Your task to perform on an android device: Open Amazon Image 0: 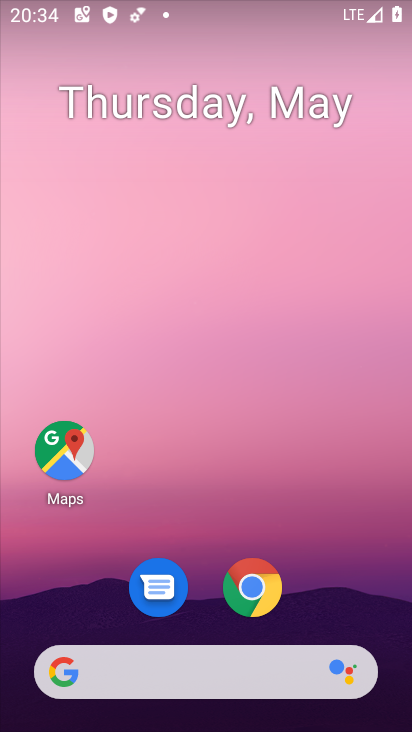
Step 0: click (247, 597)
Your task to perform on an android device: Open Amazon Image 1: 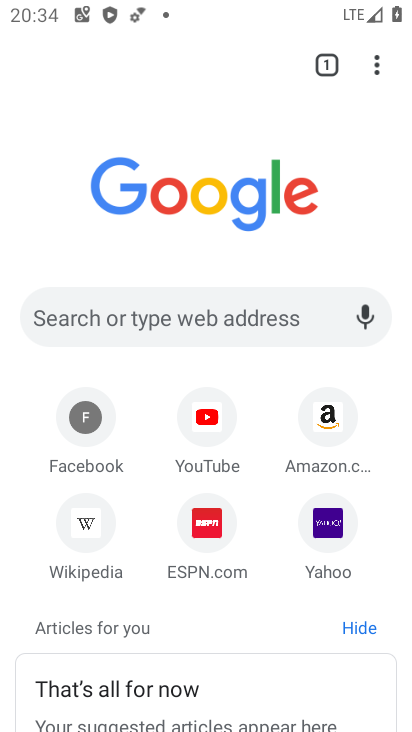
Step 1: click (327, 427)
Your task to perform on an android device: Open Amazon Image 2: 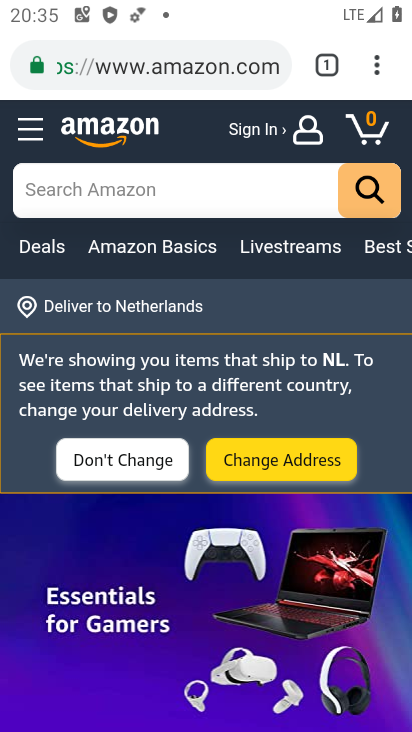
Step 2: task complete